Your task to perform on an android device: Show me the alarms in the clock app Image 0: 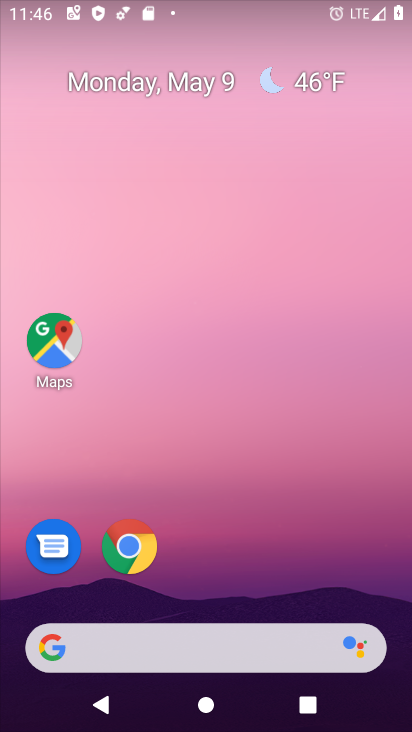
Step 0: drag from (326, 597) to (360, 91)
Your task to perform on an android device: Show me the alarms in the clock app Image 1: 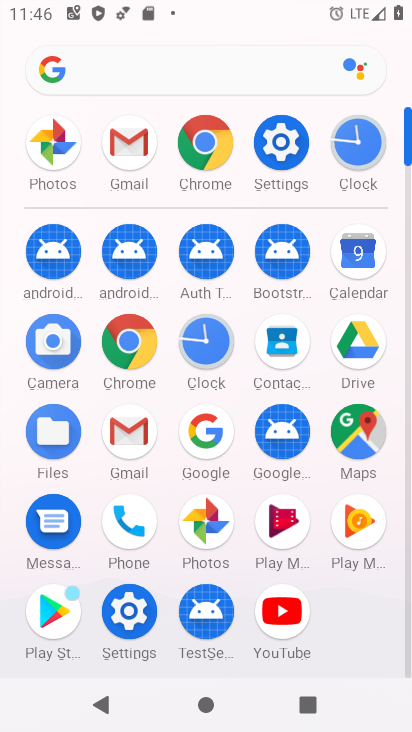
Step 1: click (353, 148)
Your task to perform on an android device: Show me the alarms in the clock app Image 2: 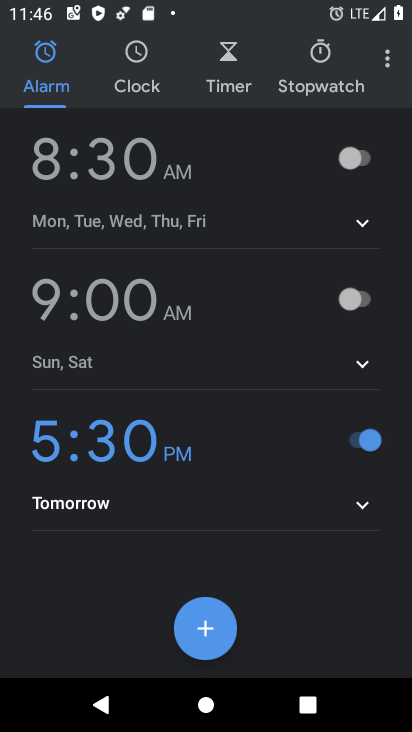
Step 2: task complete